Your task to perform on an android device: Search for pizza restaurants on Maps Image 0: 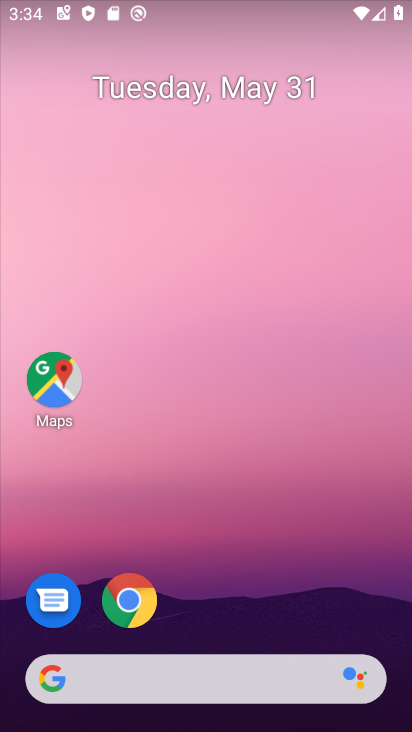
Step 0: press home button
Your task to perform on an android device: Search for pizza restaurants on Maps Image 1: 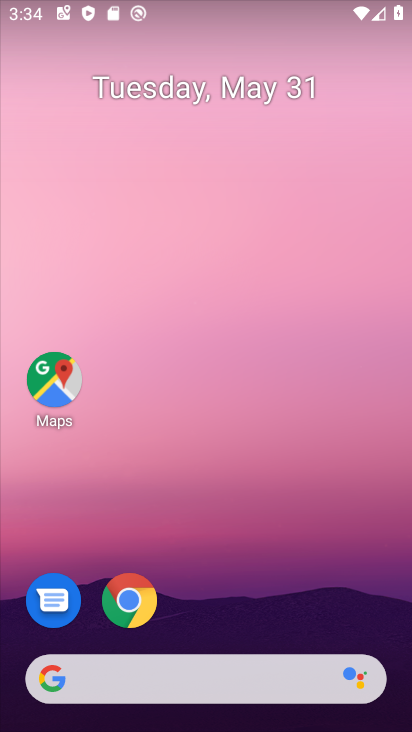
Step 1: click (58, 376)
Your task to perform on an android device: Search for pizza restaurants on Maps Image 2: 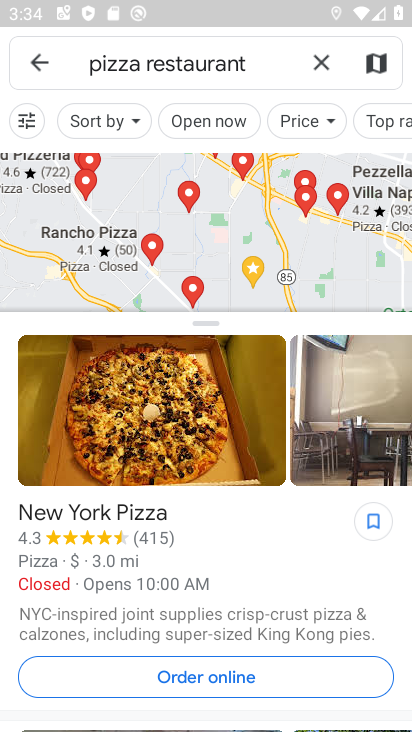
Step 2: task complete